Your task to perform on an android device: Open settings on Google Maps Image 0: 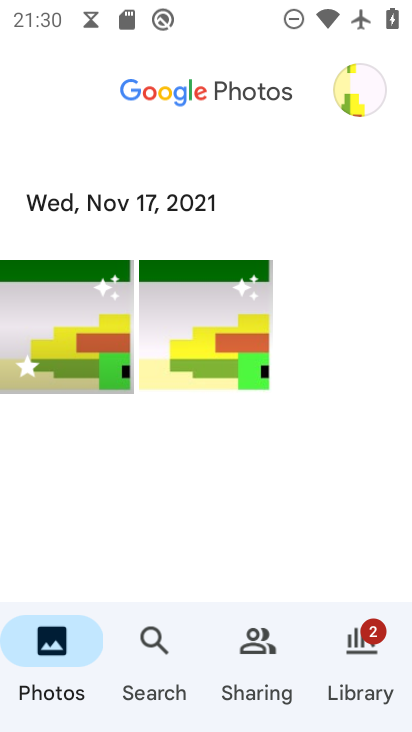
Step 0: press home button
Your task to perform on an android device: Open settings on Google Maps Image 1: 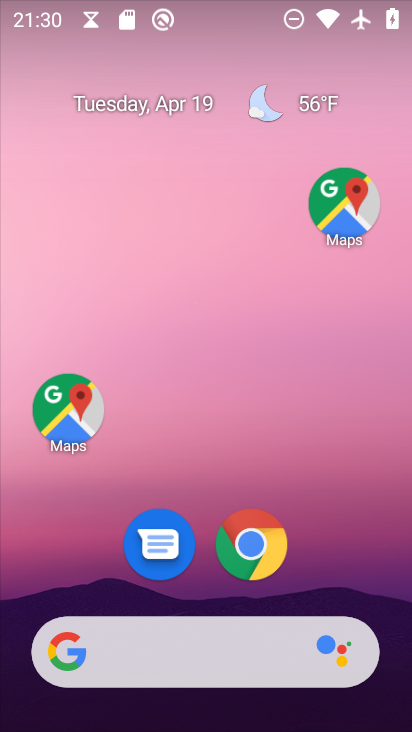
Step 1: drag from (205, 598) to (333, 78)
Your task to perform on an android device: Open settings on Google Maps Image 2: 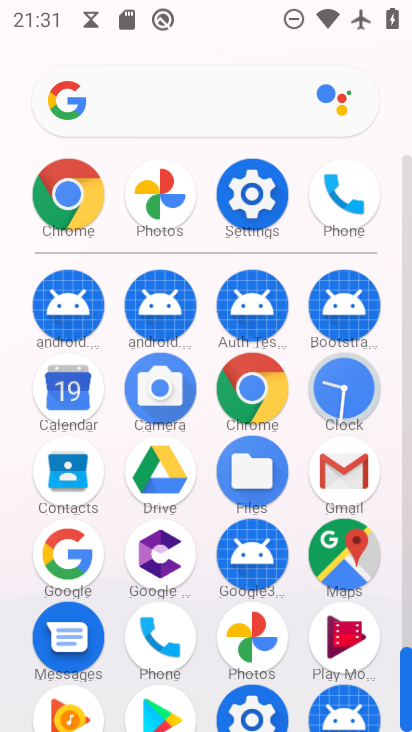
Step 2: click (351, 554)
Your task to perform on an android device: Open settings on Google Maps Image 3: 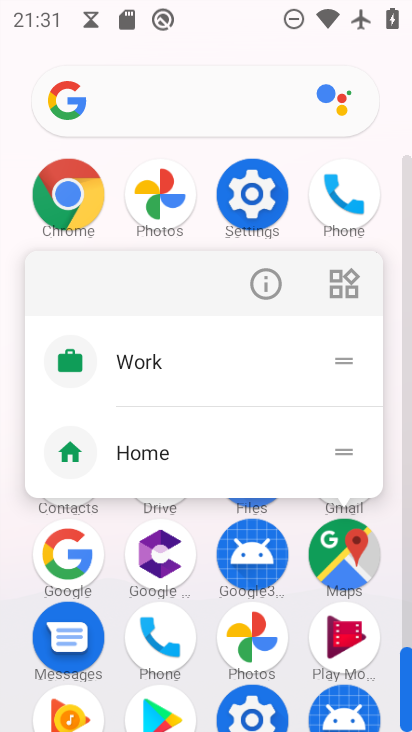
Step 3: click (348, 564)
Your task to perform on an android device: Open settings on Google Maps Image 4: 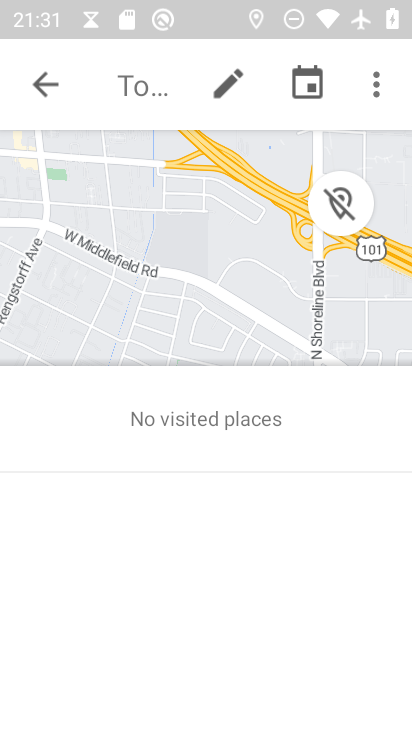
Step 4: click (48, 85)
Your task to perform on an android device: Open settings on Google Maps Image 5: 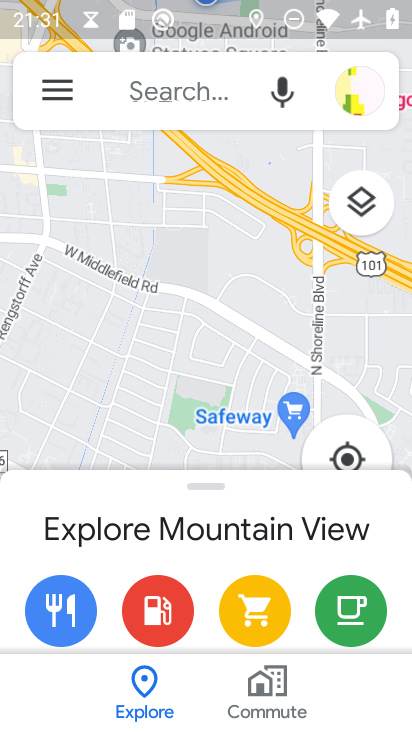
Step 5: click (49, 89)
Your task to perform on an android device: Open settings on Google Maps Image 6: 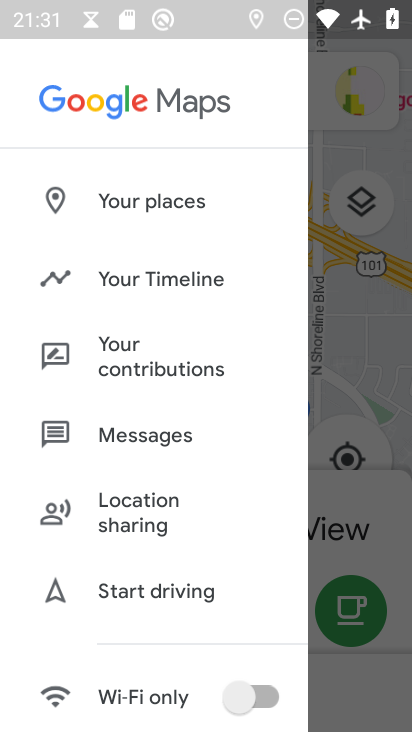
Step 6: drag from (127, 639) to (282, 104)
Your task to perform on an android device: Open settings on Google Maps Image 7: 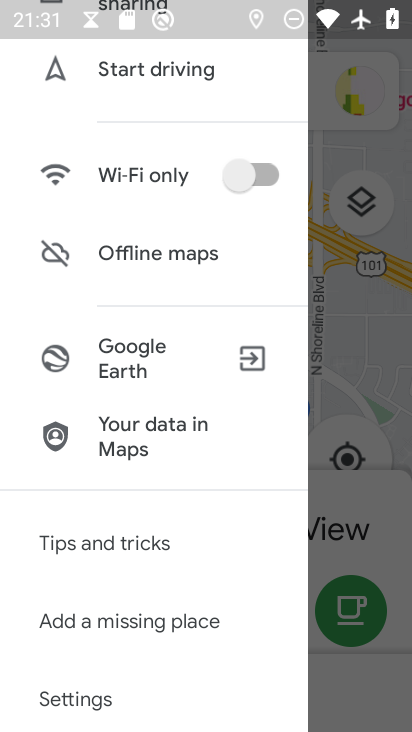
Step 7: drag from (154, 587) to (246, 233)
Your task to perform on an android device: Open settings on Google Maps Image 8: 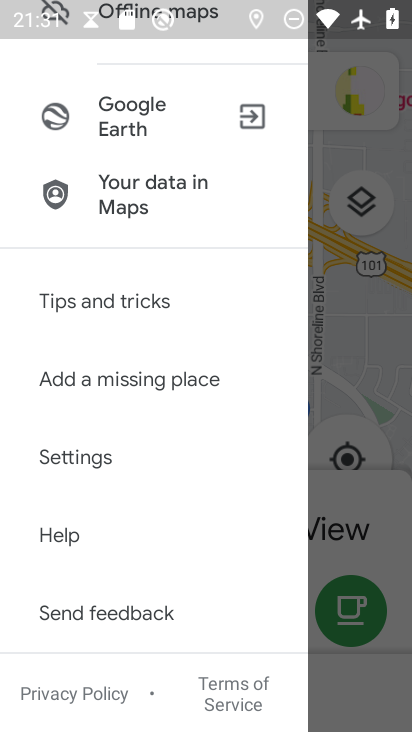
Step 8: click (89, 459)
Your task to perform on an android device: Open settings on Google Maps Image 9: 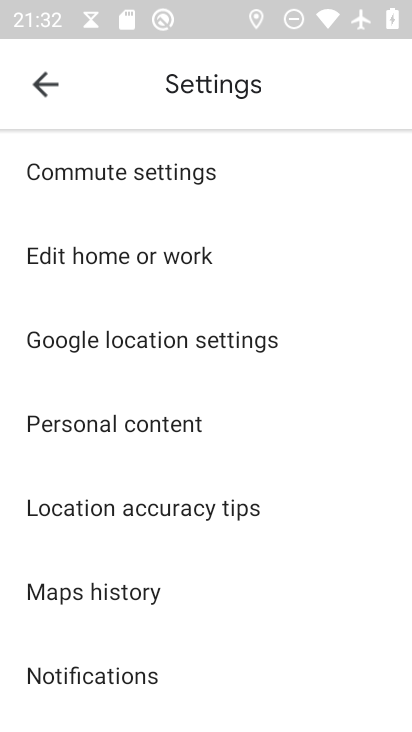
Step 9: task complete